Your task to perform on an android device: turn vacation reply on in the gmail app Image 0: 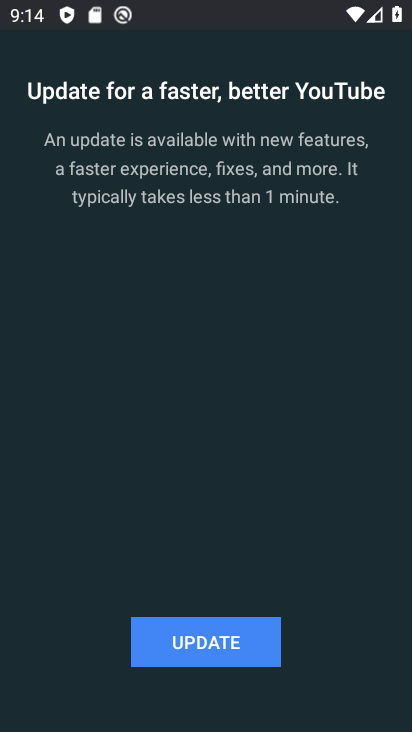
Step 0: press home button
Your task to perform on an android device: turn vacation reply on in the gmail app Image 1: 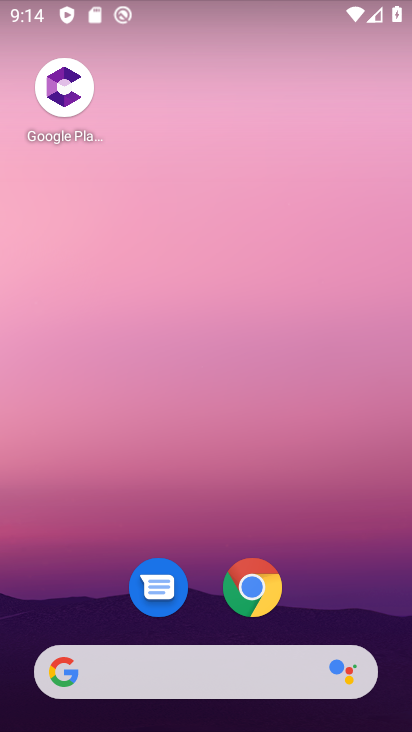
Step 1: drag from (308, 652) to (255, 138)
Your task to perform on an android device: turn vacation reply on in the gmail app Image 2: 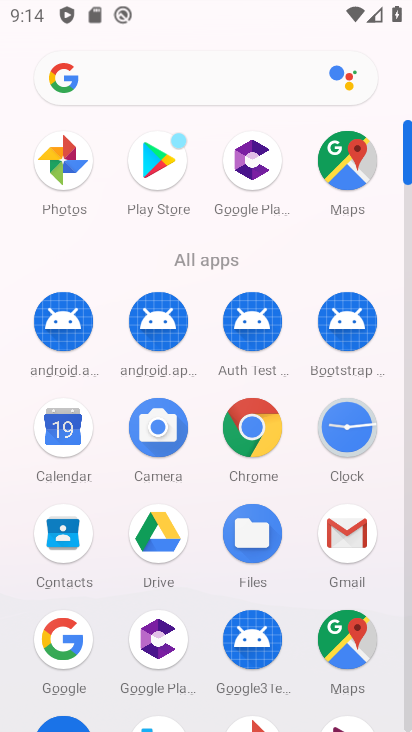
Step 2: click (363, 523)
Your task to perform on an android device: turn vacation reply on in the gmail app Image 3: 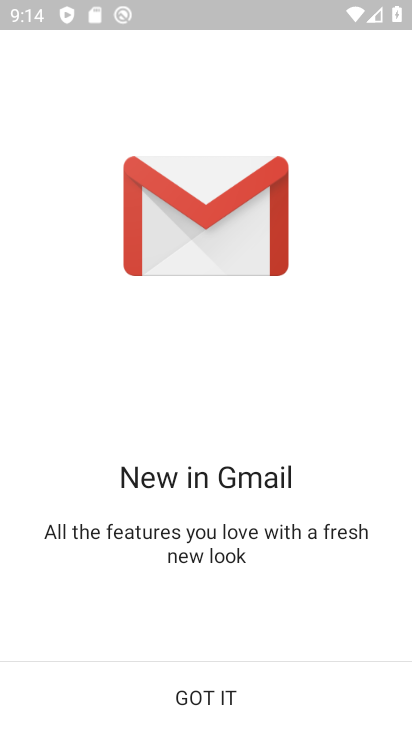
Step 3: click (182, 682)
Your task to perform on an android device: turn vacation reply on in the gmail app Image 4: 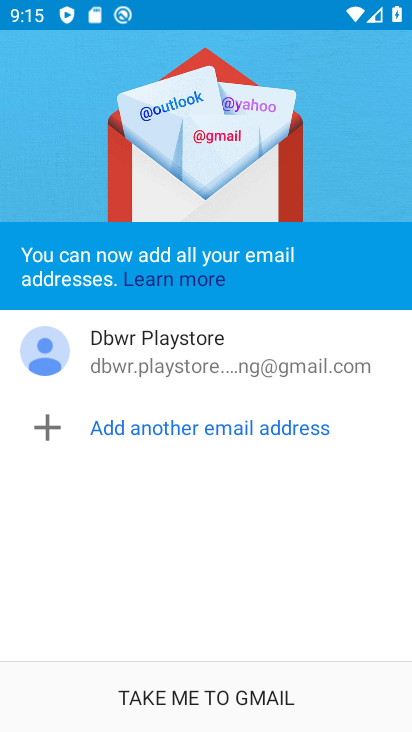
Step 4: click (203, 705)
Your task to perform on an android device: turn vacation reply on in the gmail app Image 5: 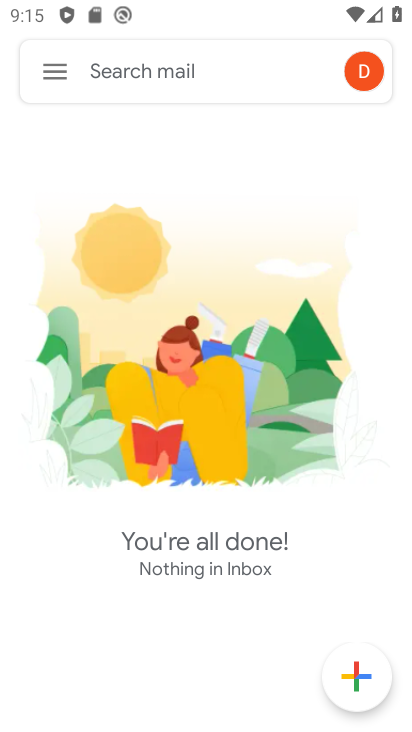
Step 5: click (58, 65)
Your task to perform on an android device: turn vacation reply on in the gmail app Image 6: 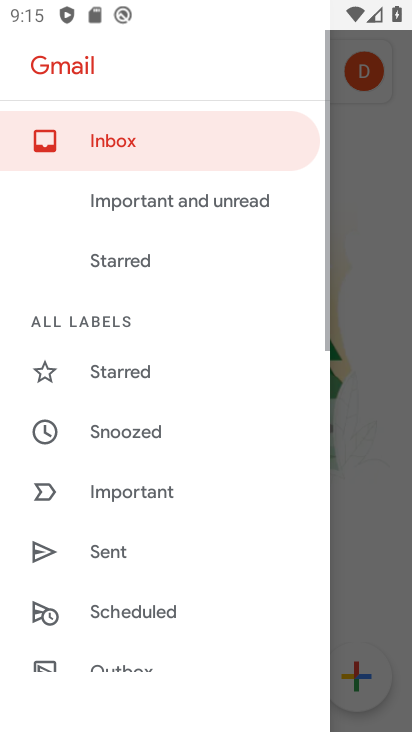
Step 6: drag from (150, 648) to (144, 50)
Your task to perform on an android device: turn vacation reply on in the gmail app Image 7: 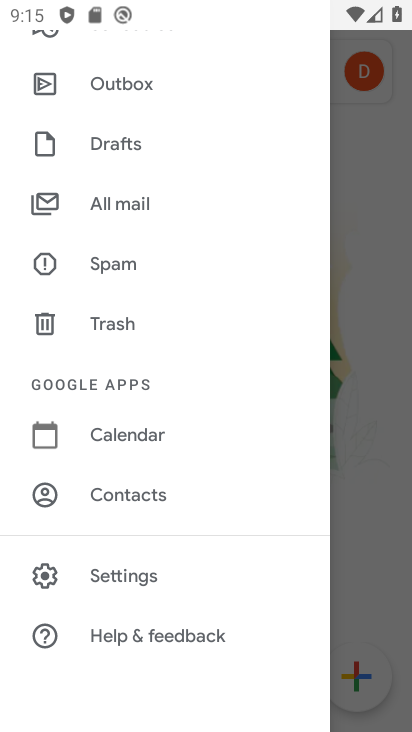
Step 7: click (123, 585)
Your task to perform on an android device: turn vacation reply on in the gmail app Image 8: 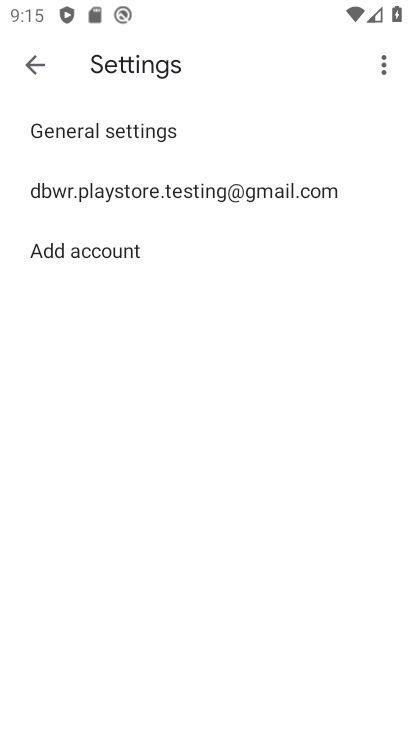
Step 8: click (117, 189)
Your task to perform on an android device: turn vacation reply on in the gmail app Image 9: 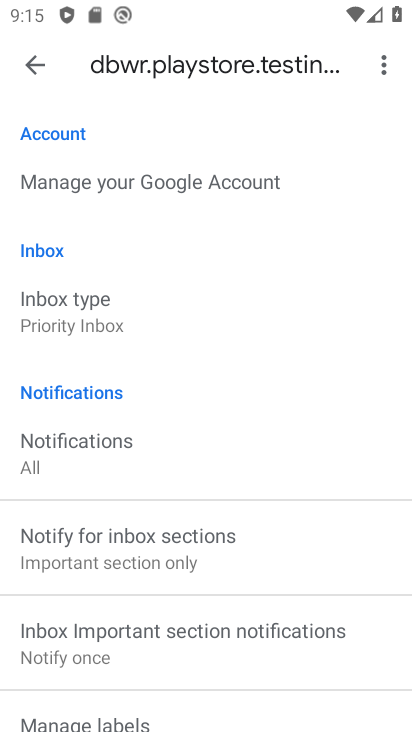
Step 9: drag from (110, 584) to (100, 18)
Your task to perform on an android device: turn vacation reply on in the gmail app Image 10: 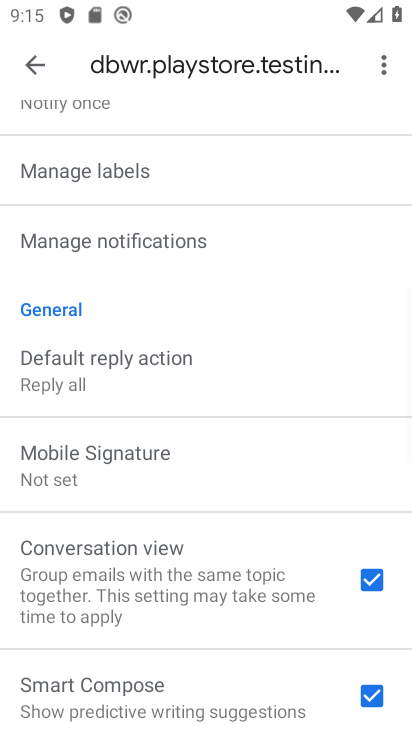
Step 10: drag from (190, 670) to (175, 2)
Your task to perform on an android device: turn vacation reply on in the gmail app Image 11: 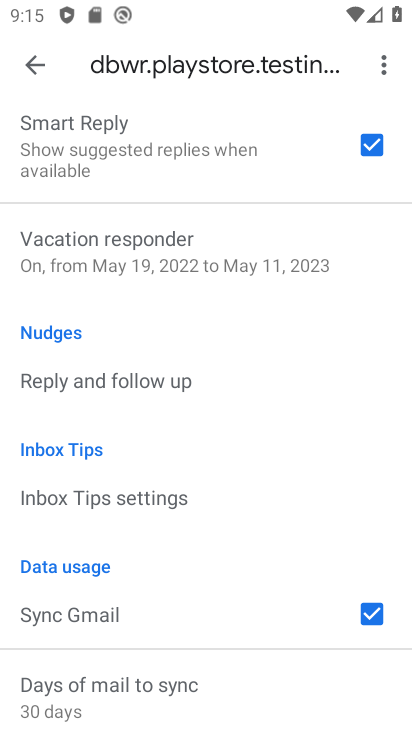
Step 11: click (123, 273)
Your task to perform on an android device: turn vacation reply on in the gmail app Image 12: 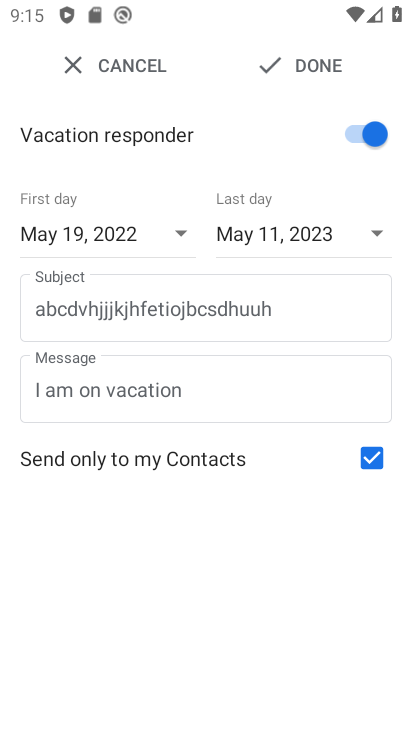
Step 12: click (329, 75)
Your task to perform on an android device: turn vacation reply on in the gmail app Image 13: 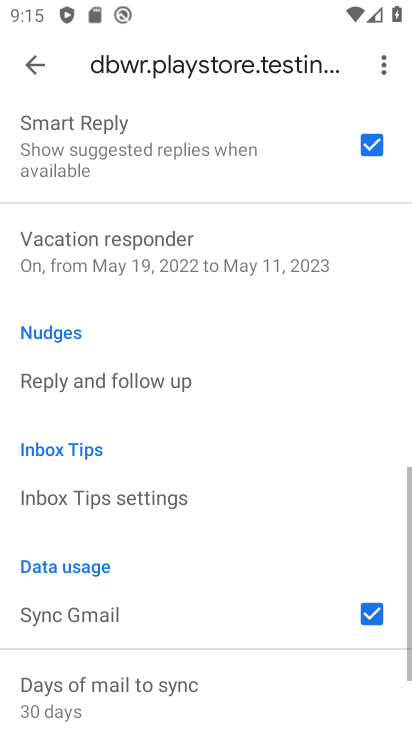
Step 13: task complete